Your task to perform on an android device: Go to privacy settings Image 0: 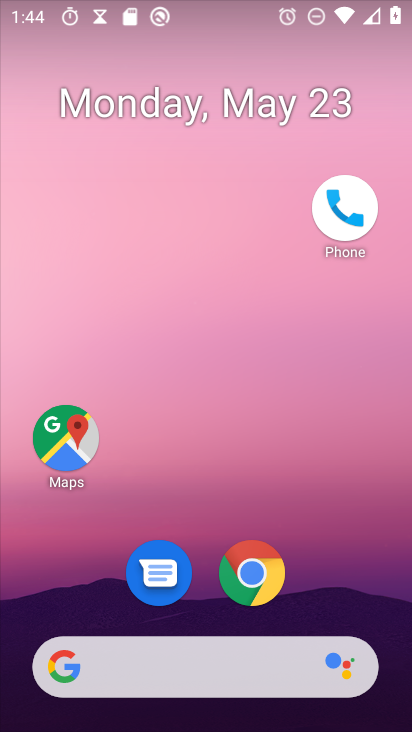
Step 0: press home button
Your task to perform on an android device: Go to privacy settings Image 1: 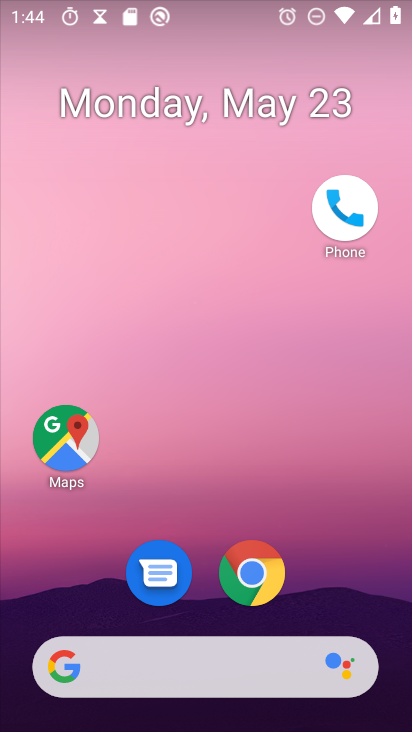
Step 1: drag from (153, 676) to (285, 211)
Your task to perform on an android device: Go to privacy settings Image 2: 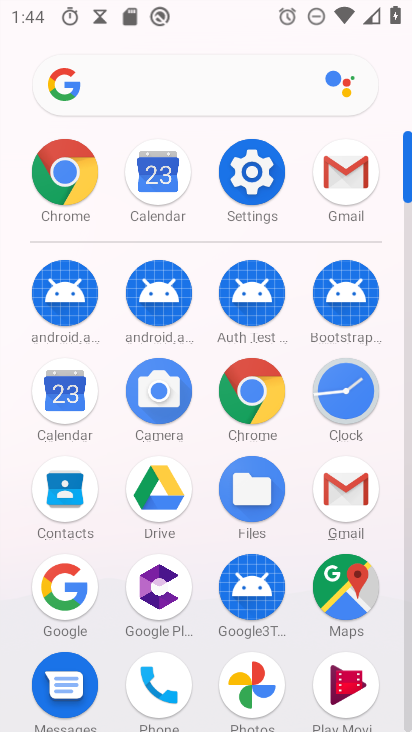
Step 2: click (258, 185)
Your task to perform on an android device: Go to privacy settings Image 3: 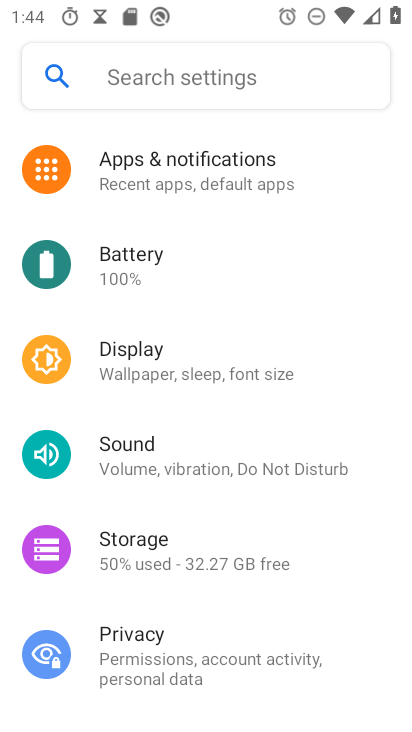
Step 3: click (146, 650)
Your task to perform on an android device: Go to privacy settings Image 4: 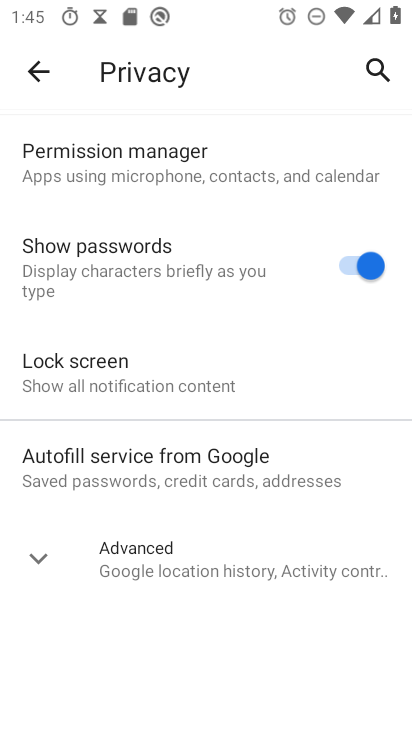
Step 4: task complete